Your task to perform on an android device: turn on translation in the chrome app Image 0: 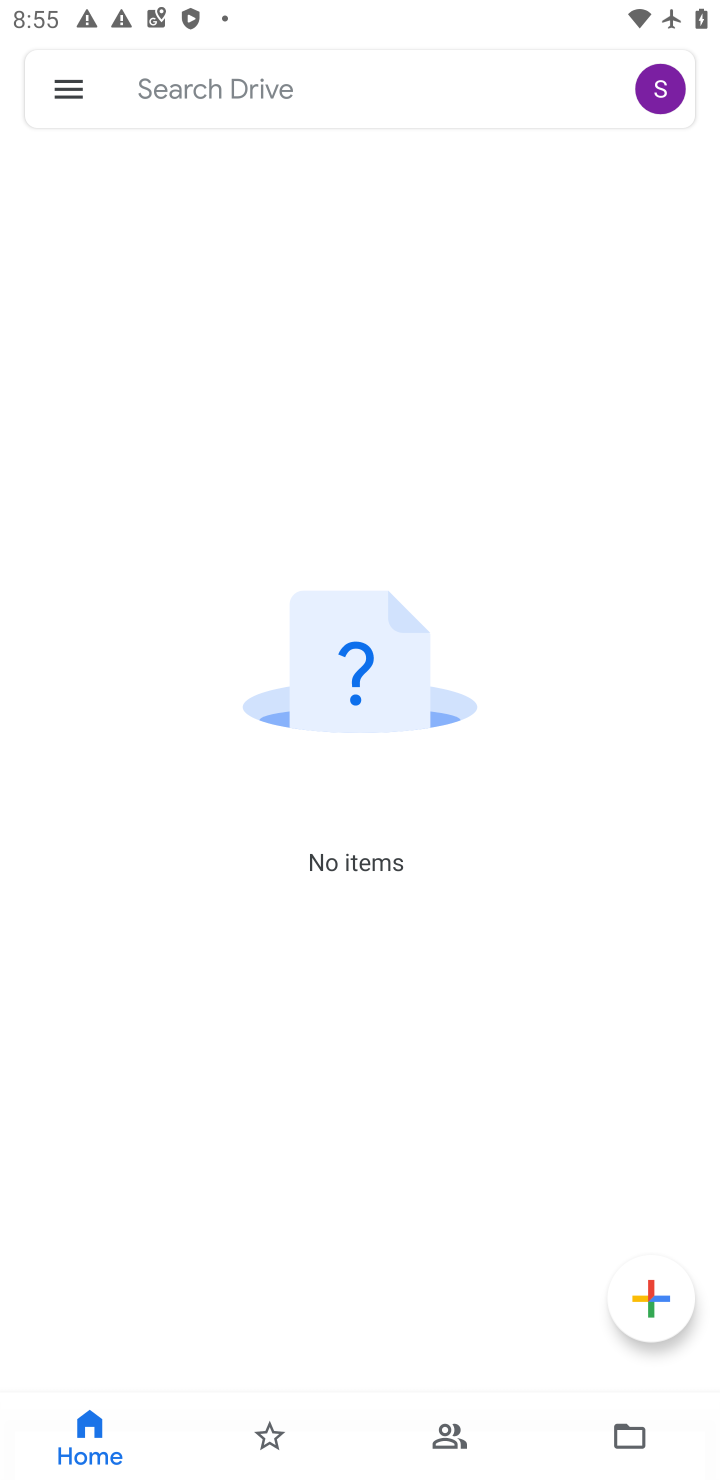
Step 0: press home button
Your task to perform on an android device: turn on translation in the chrome app Image 1: 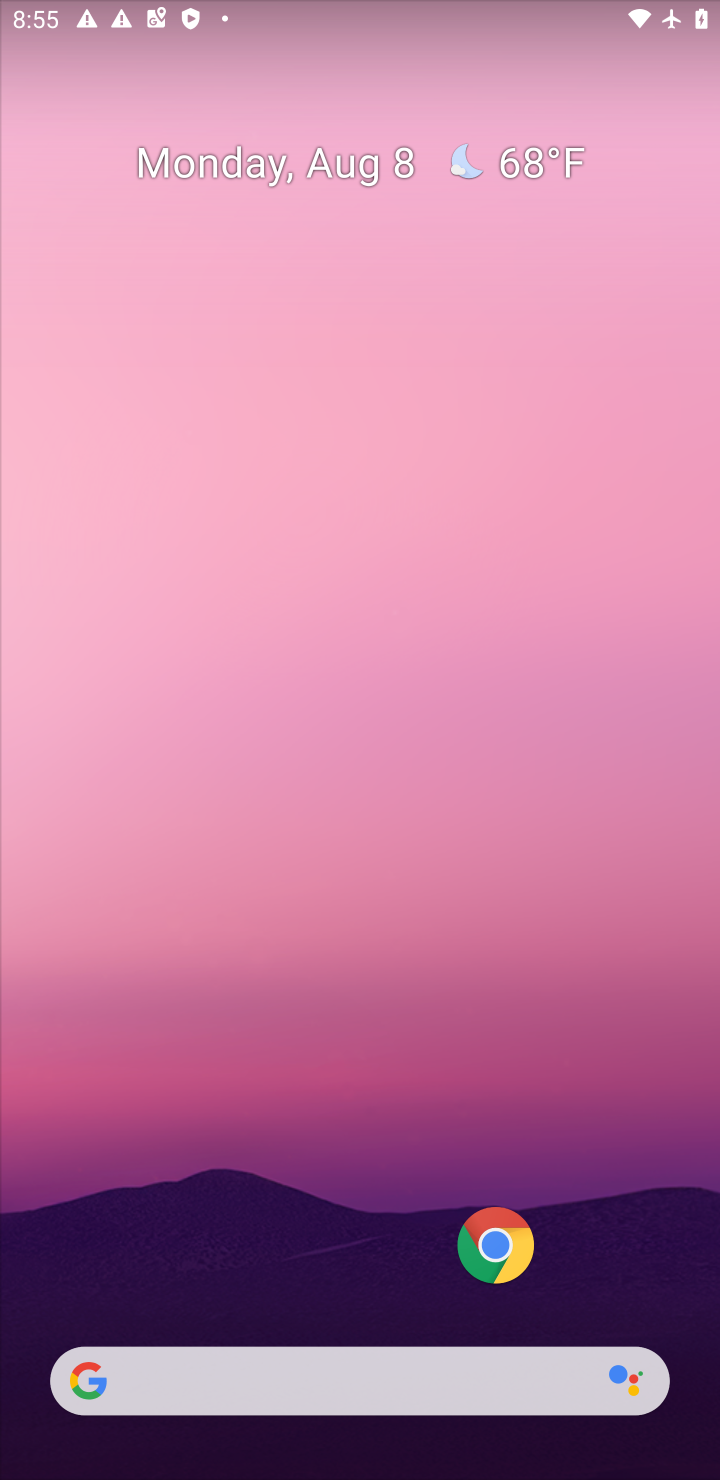
Step 1: drag from (336, 1260) to (688, 768)
Your task to perform on an android device: turn on translation in the chrome app Image 2: 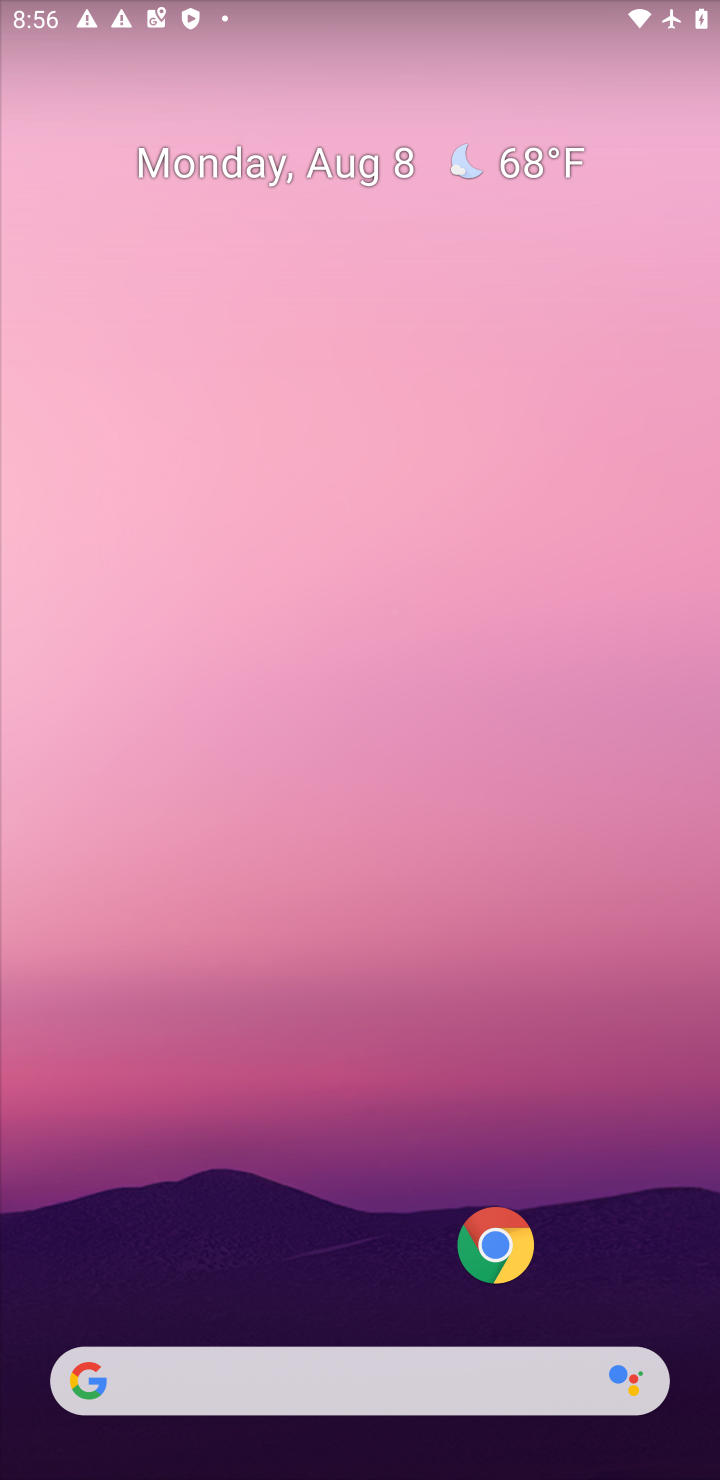
Step 2: drag from (301, 894) to (652, 29)
Your task to perform on an android device: turn on translation in the chrome app Image 3: 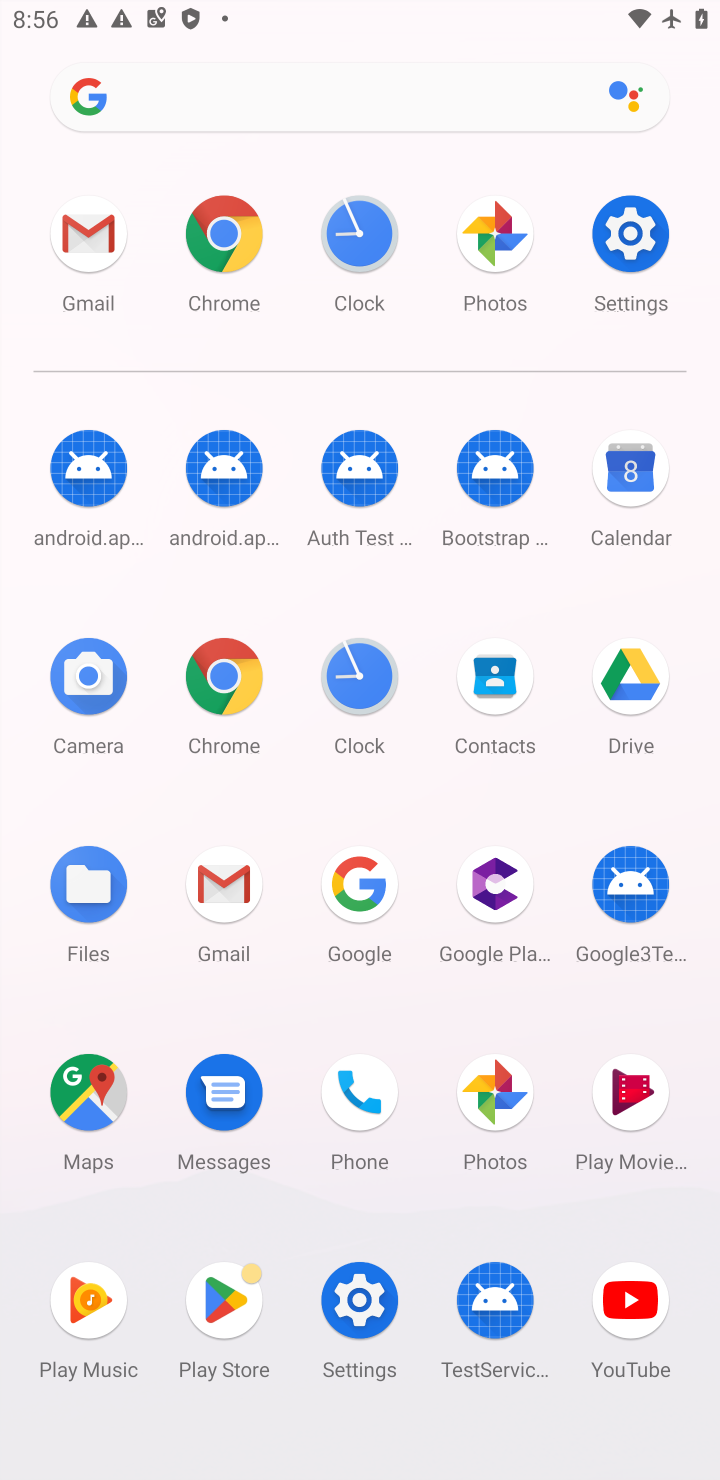
Step 3: click (233, 702)
Your task to perform on an android device: turn on translation in the chrome app Image 4: 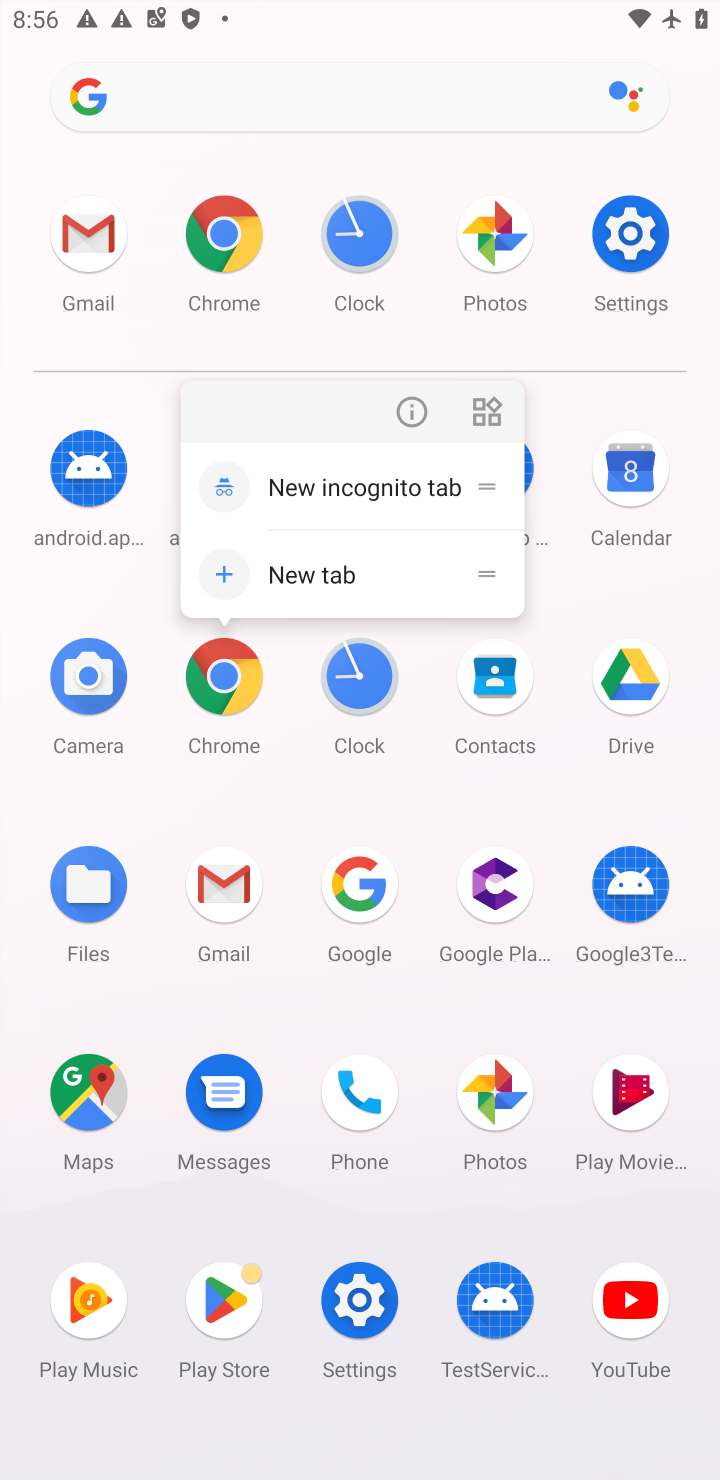
Step 4: click (228, 705)
Your task to perform on an android device: turn on translation in the chrome app Image 5: 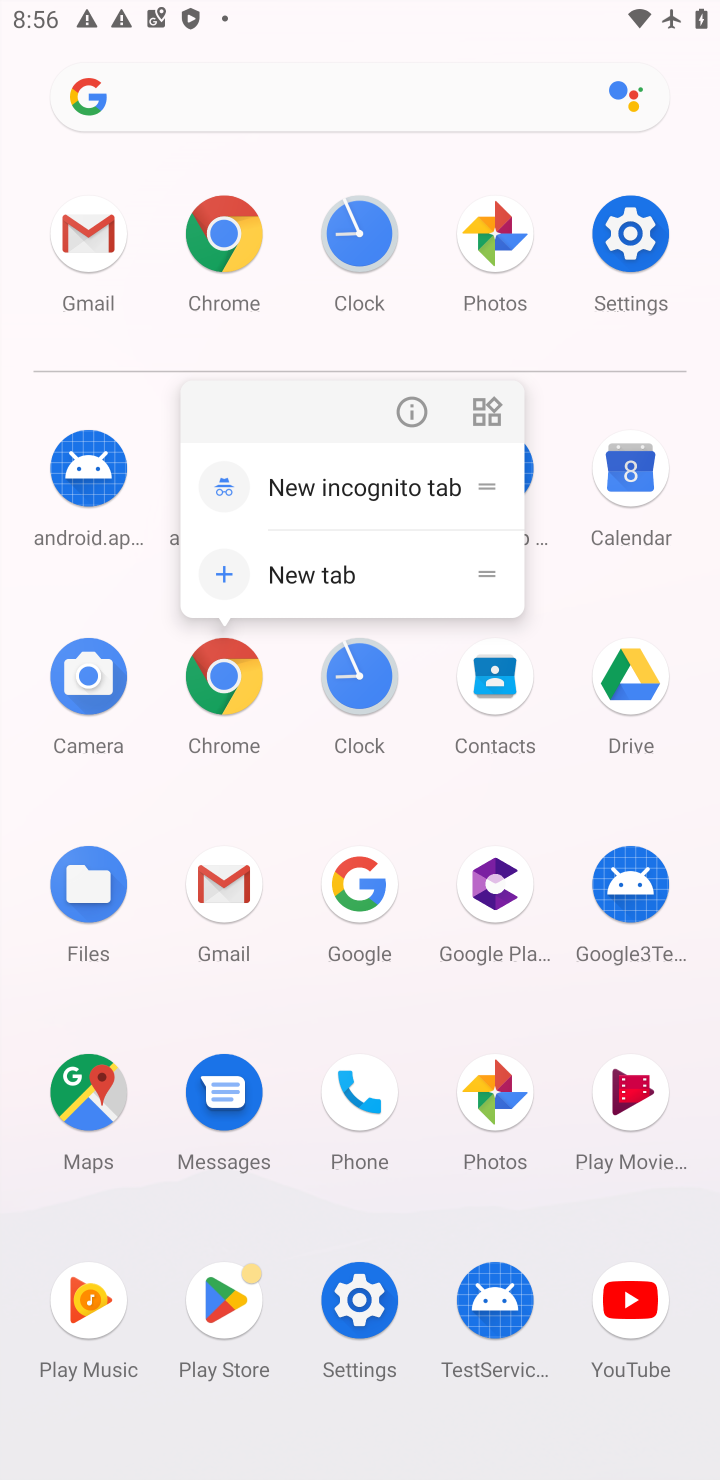
Step 5: click (228, 705)
Your task to perform on an android device: turn on translation in the chrome app Image 6: 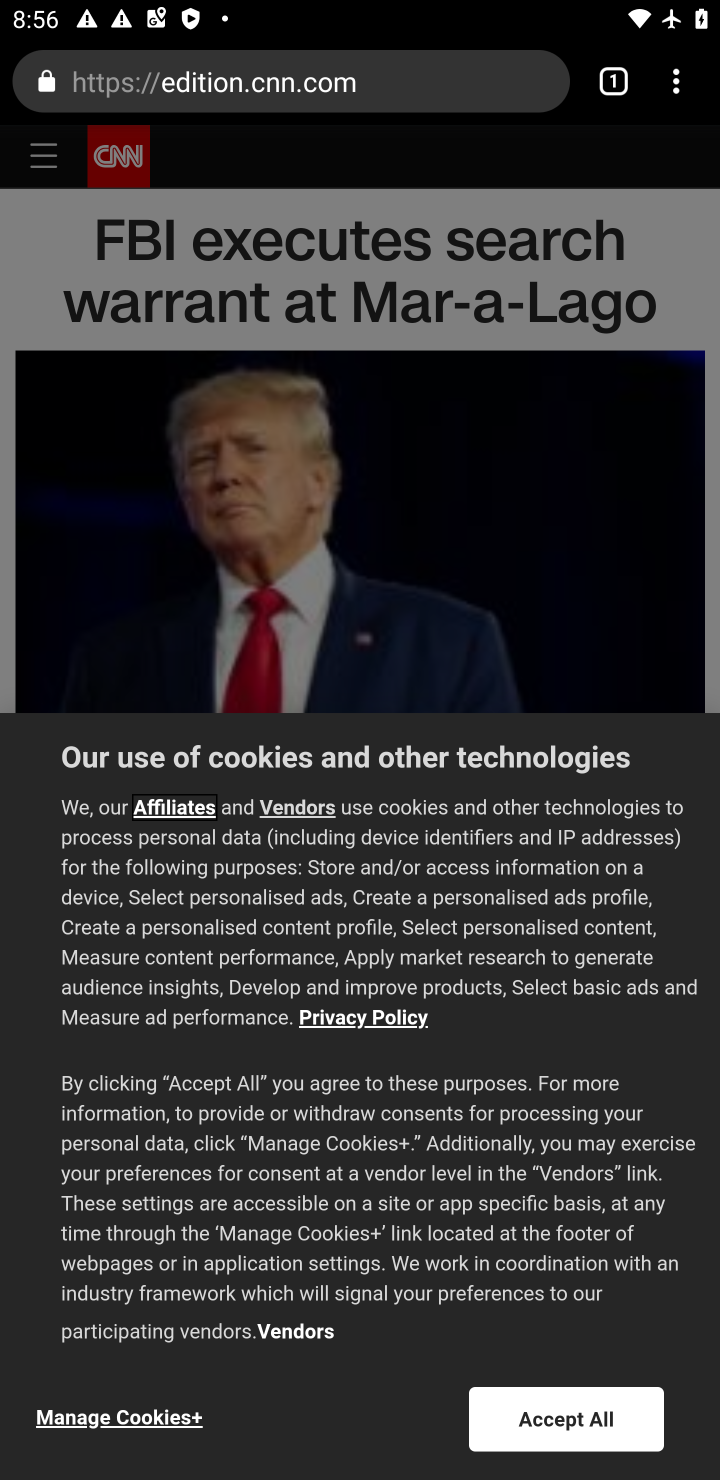
Step 6: click (679, 68)
Your task to perform on an android device: turn on translation in the chrome app Image 7: 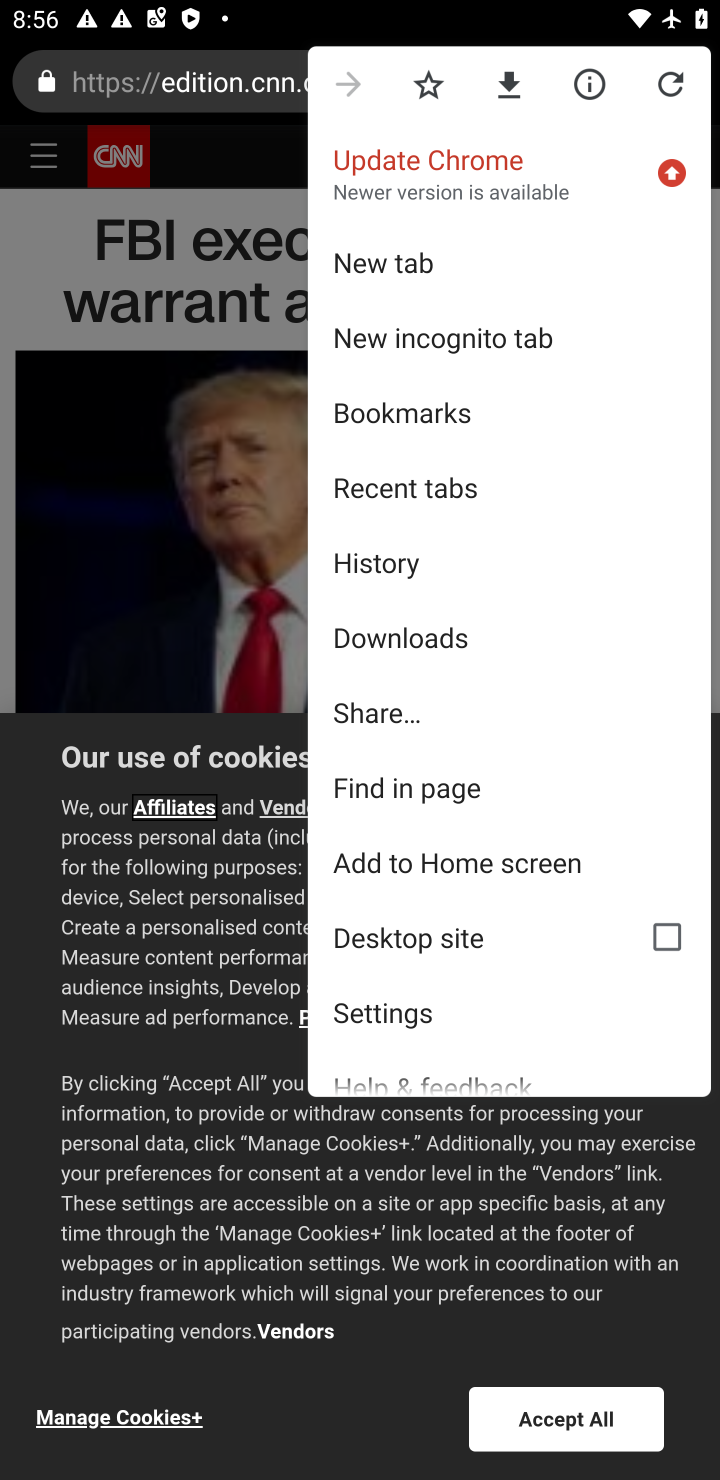
Step 7: click (390, 1012)
Your task to perform on an android device: turn on translation in the chrome app Image 8: 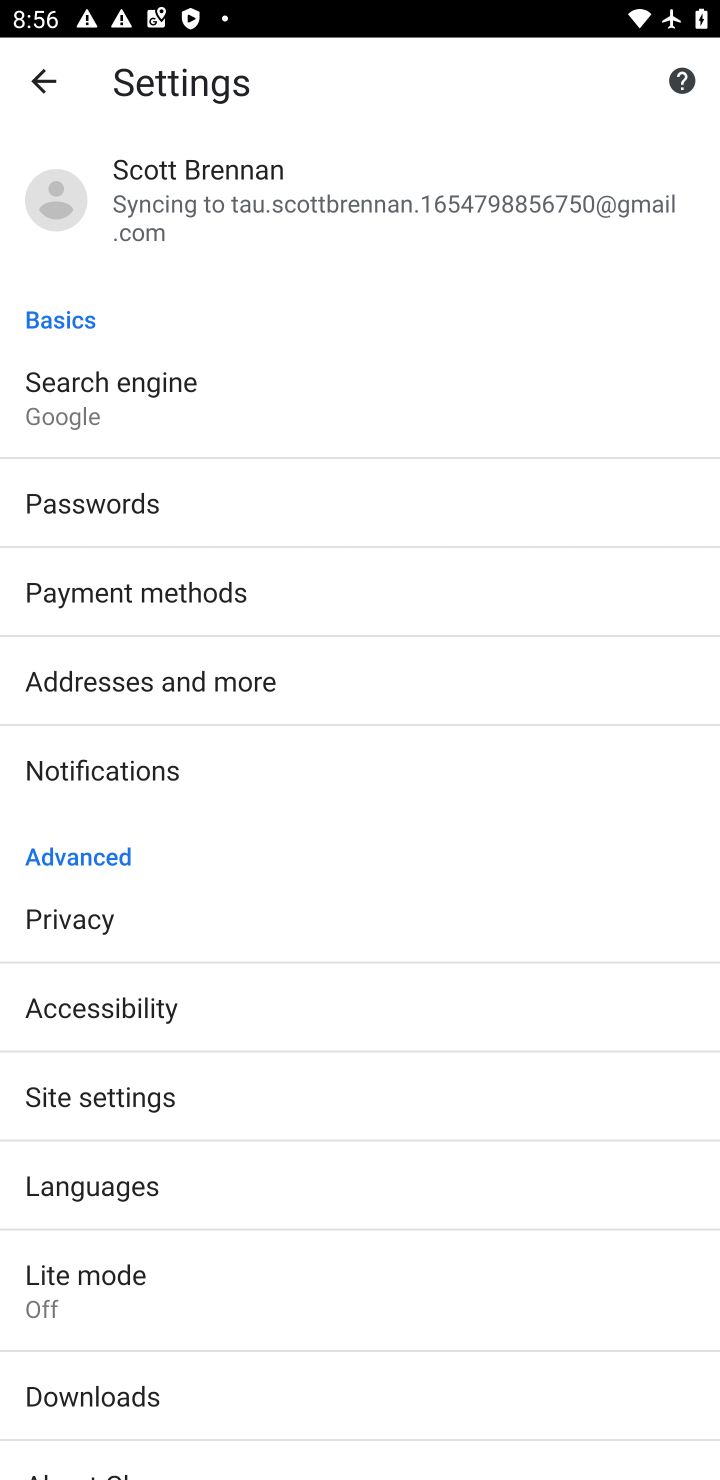
Step 8: click (137, 1190)
Your task to perform on an android device: turn on translation in the chrome app Image 9: 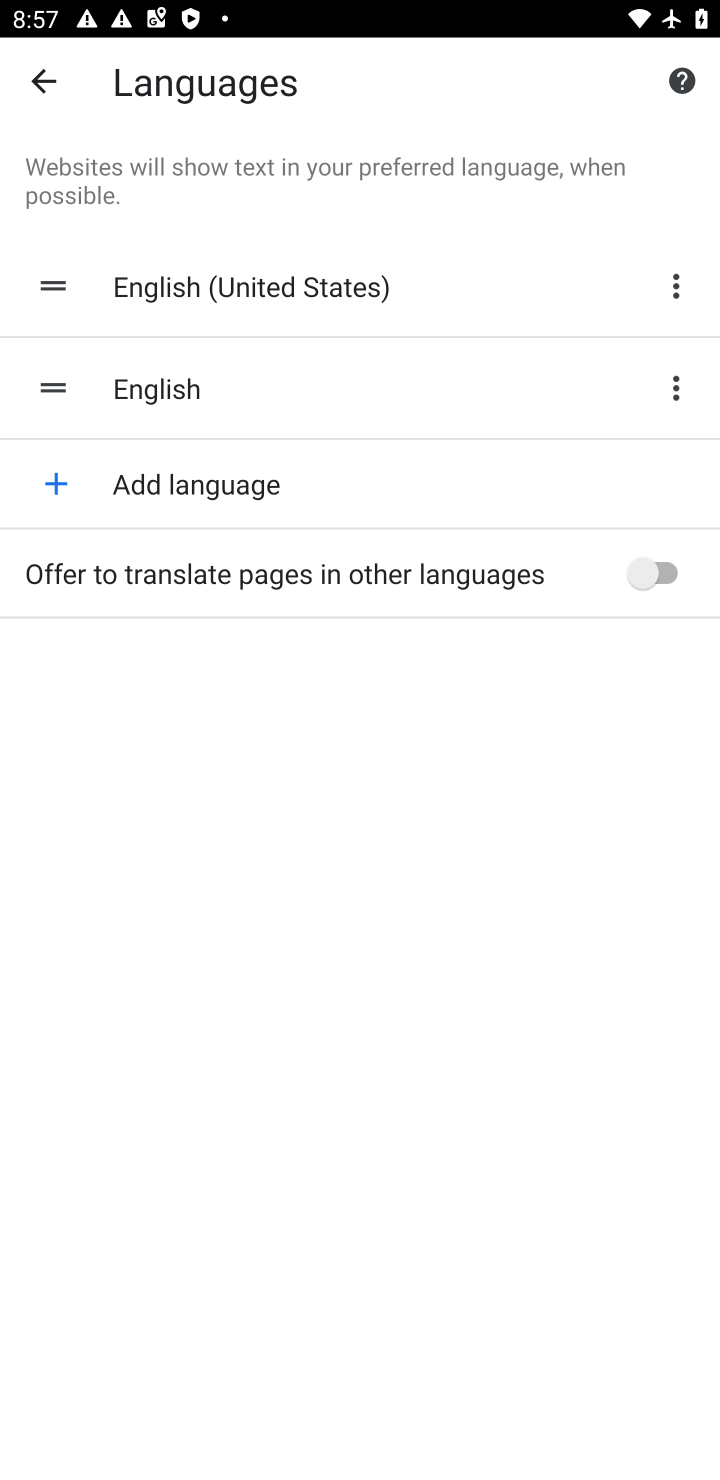
Step 9: click (683, 587)
Your task to perform on an android device: turn on translation in the chrome app Image 10: 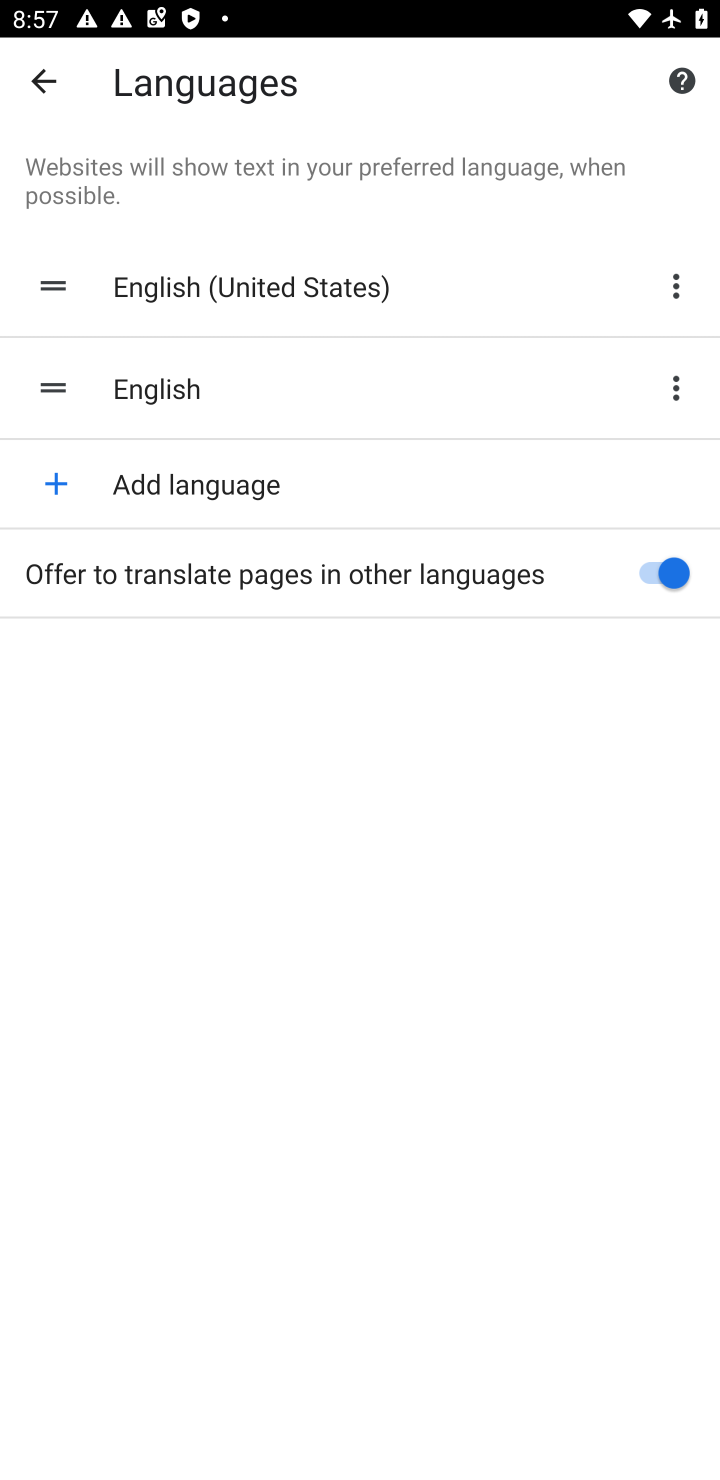
Step 10: task complete